Your task to perform on an android device: change your default location settings in chrome Image 0: 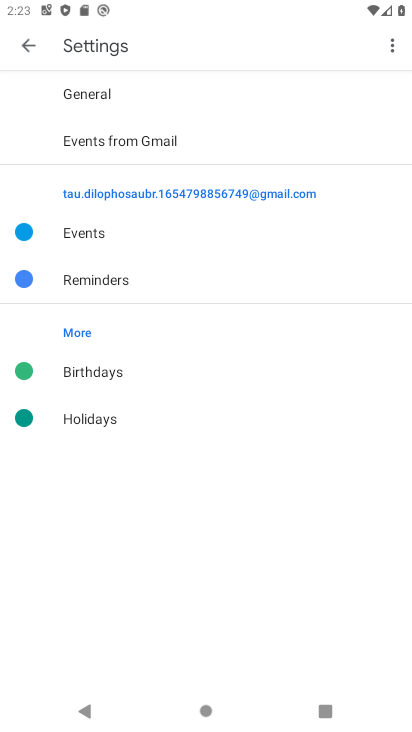
Step 0: press home button
Your task to perform on an android device: change your default location settings in chrome Image 1: 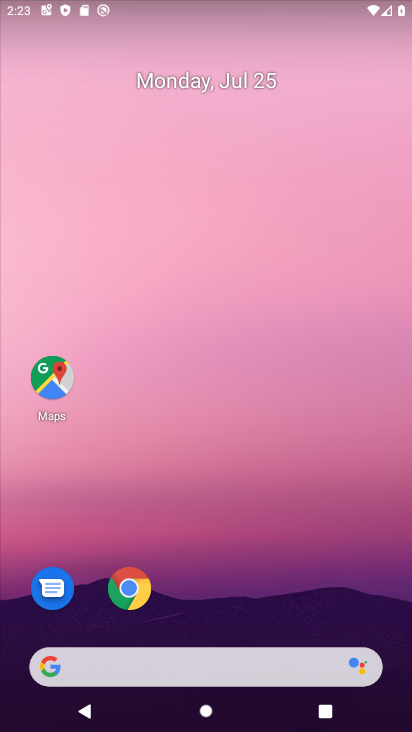
Step 1: click (142, 591)
Your task to perform on an android device: change your default location settings in chrome Image 2: 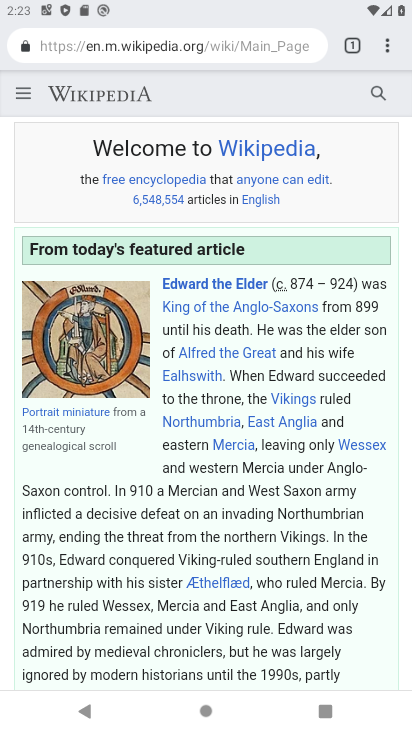
Step 2: click (378, 50)
Your task to perform on an android device: change your default location settings in chrome Image 3: 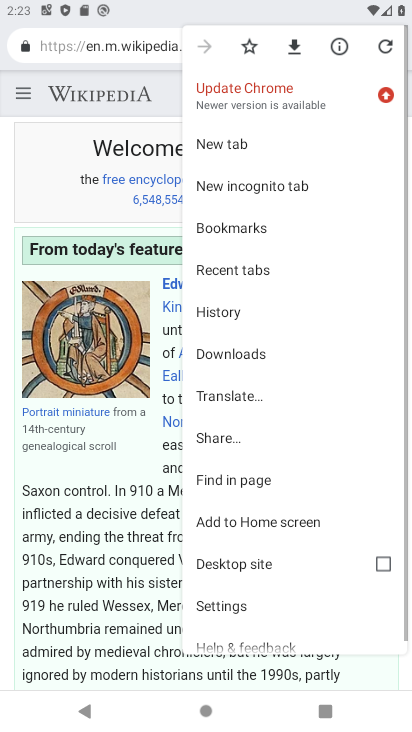
Step 3: click (389, 50)
Your task to perform on an android device: change your default location settings in chrome Image 4: 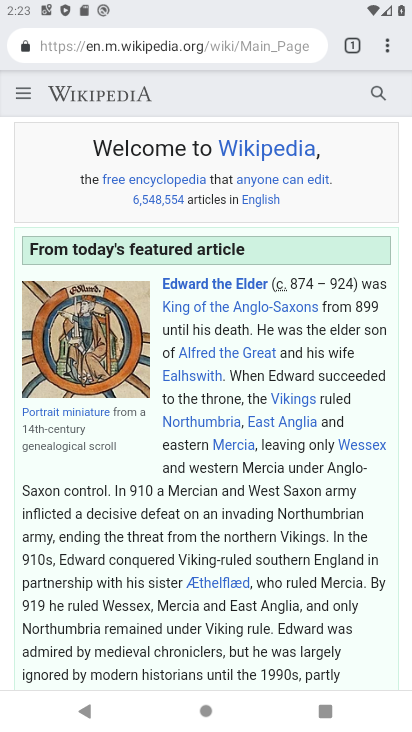
Step 4: click (82, 718)
Your task to perform on an android device: change your default location settings in chrome Image 5: 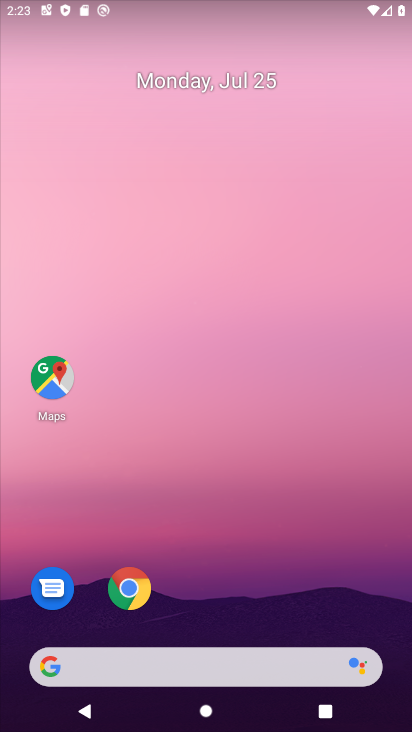
Step 5: click (116, 583)
Your task to perform on an android device: change your default location settings in chrome Image 6: 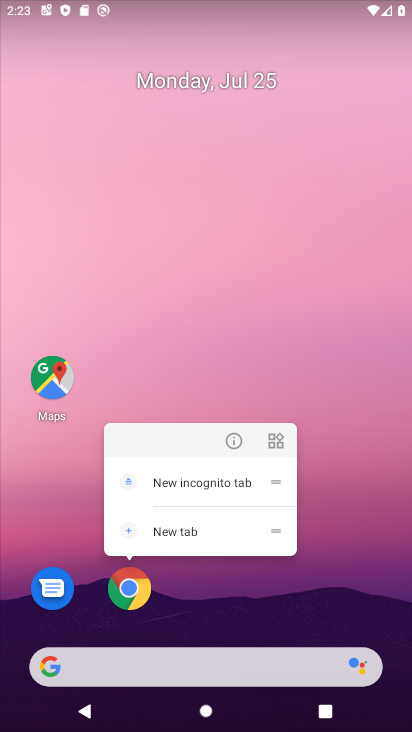
Step 6: click (133, 611)
Your task to perform on an android device: change your default location settings in chrome Image 7: 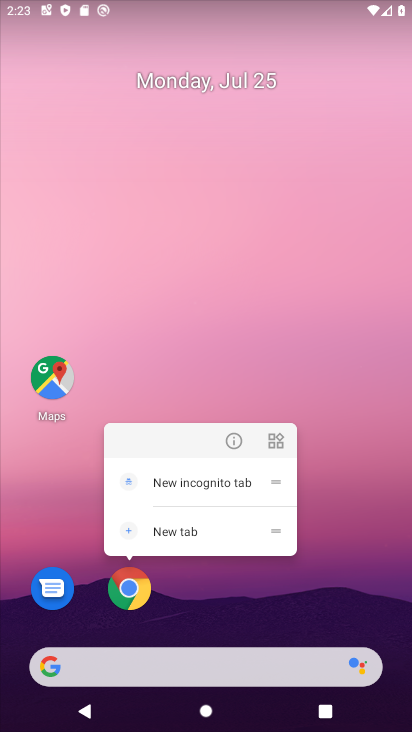
Step 7: click (131, 590)
Your task to perform on an android device: change your default location settings in chrome Image 8: 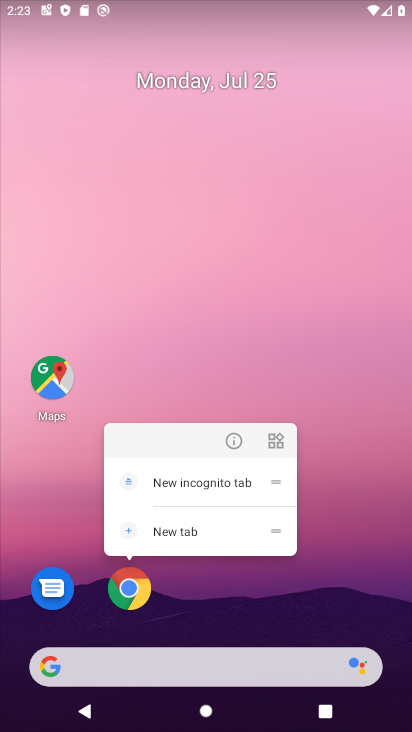
Step 8: click (131, 590)
Your task to perform on an android device: change your default location settings in chrome Image 9: 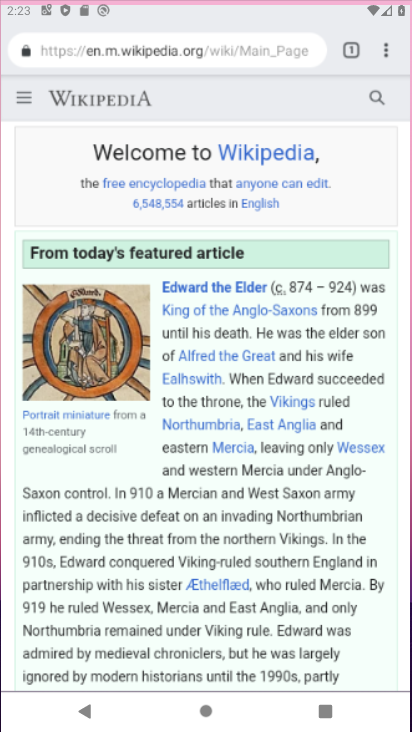
Step 9: click (333, 231)
Your task to perform on an android device: change your default location settings in chrome Image 10: 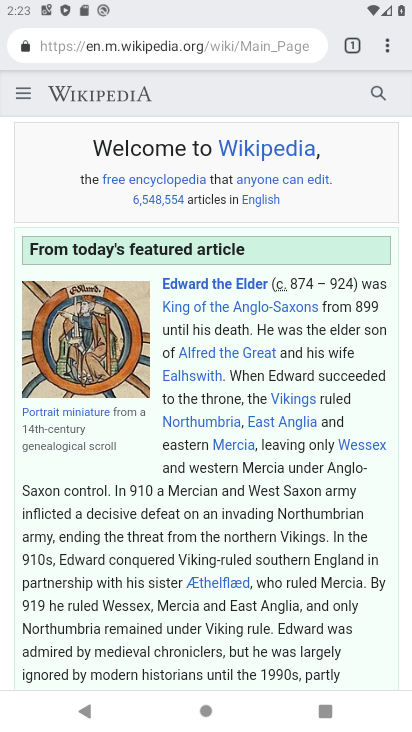
Step 10: click (392, 49)
Your task to perform on an android device: change your default location settings in chrome Image 11: 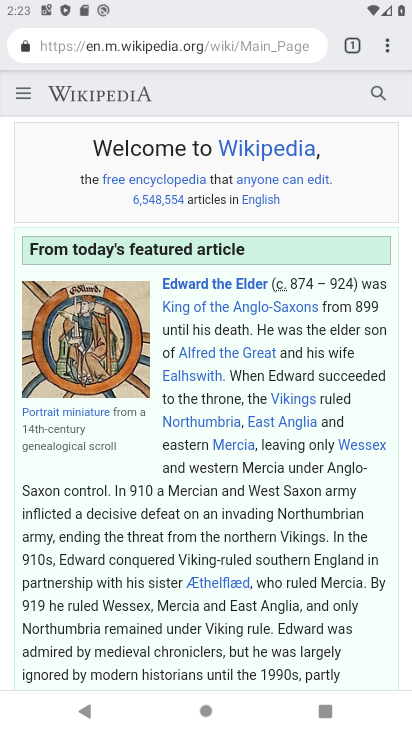
Step 11: click (393, 52)
Your task to perform on an android device: change your default location settings in chrome Image 12: 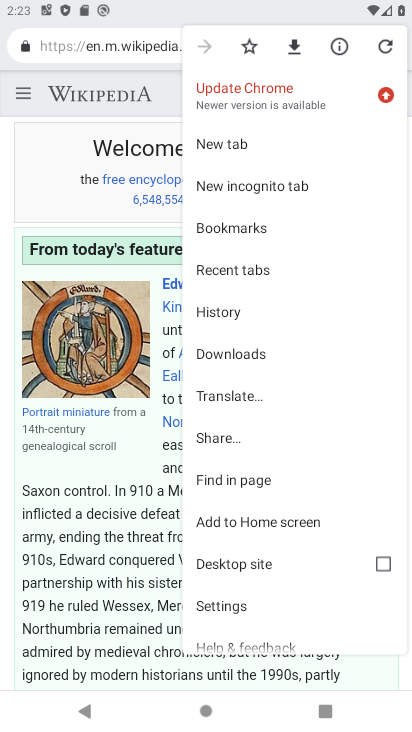
Step 12: click (248, 606)
Your task to perform on an android device: change your default location settings in chrome Image 13: 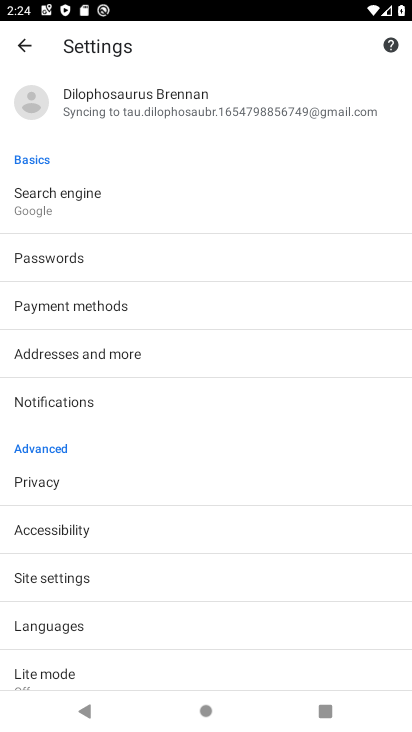
Step 13: click (47, 583)
Your task to perform on an android device: change your default location settings in chrome Image 14: 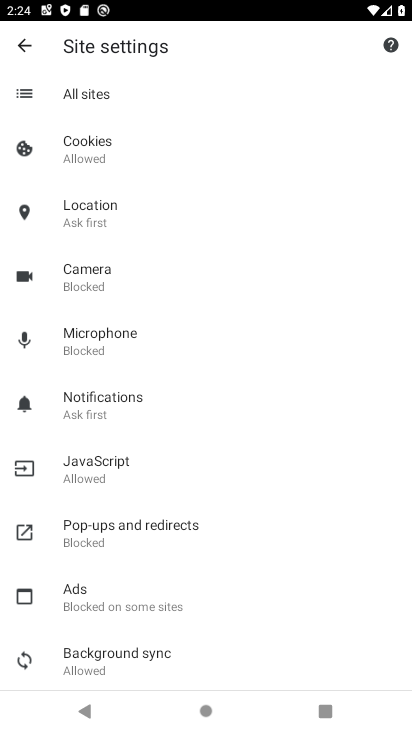
Step 14: click (107, 204)
Your task to perform on an android device: change your default location settings in chrome Image 15: 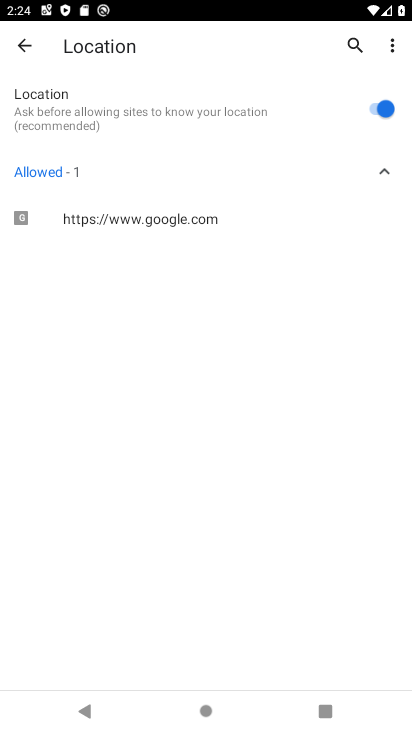
Step 15: click (368, 111)
Your task to perform on an android device: change your default location settings in chrome Image 16: 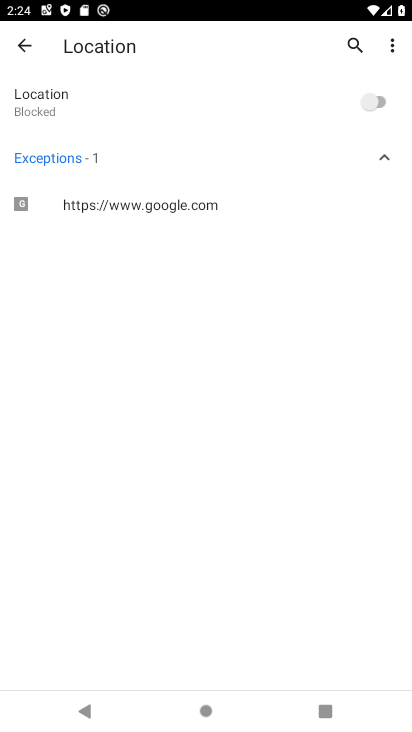
Step 16: task complete